Your task to perform on an android device: Open Yahoo.com Image 0: 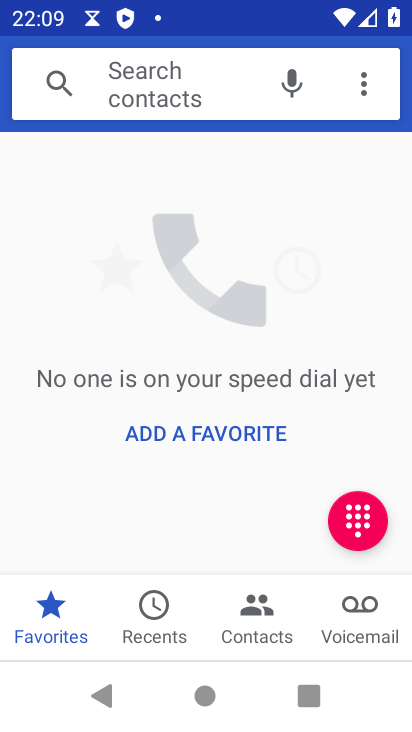
Step 0: press home button
Your task to perform on an android device: Open Yahoo.com Image 1: 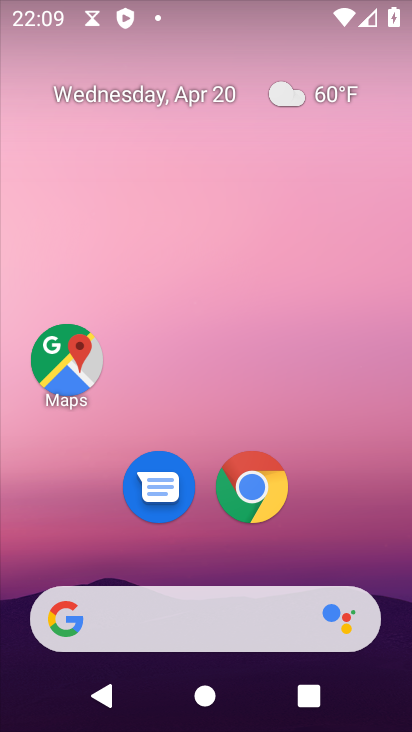
Step 1: click (243, 481)
Your task to perform on an android device: Open Yahoo.com Image 2: 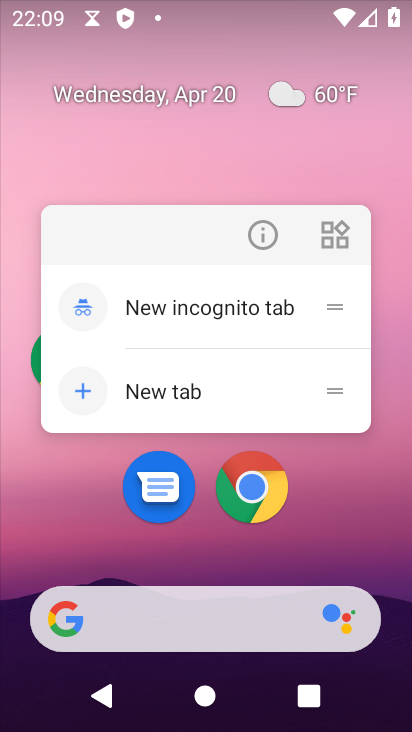
Step 2: click (262, 238)
Your task to perform on an android device: Open Yahoo.com Image 3: 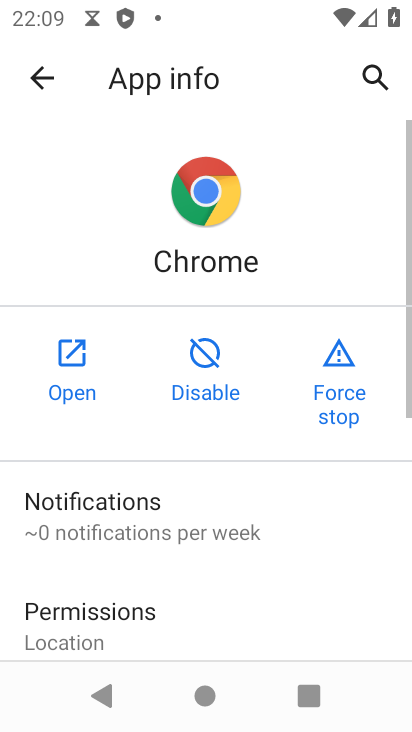
Step 3: click (78, 366)
Your task to perform on an android device: Open Yahoo.com Image 4: 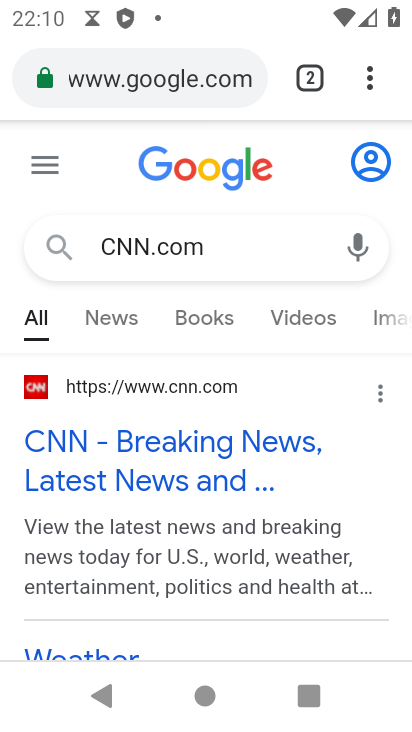
Step 4: click (310, 75)
Your task to perform on an android device: Open Yahoo.com Image 5: 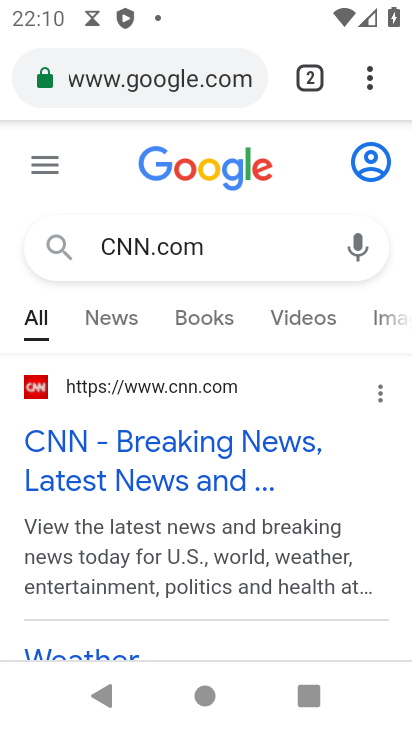
Step 5: click (307, 80)
Your task to perform on an android device: Open Yahoo.com Image 6: 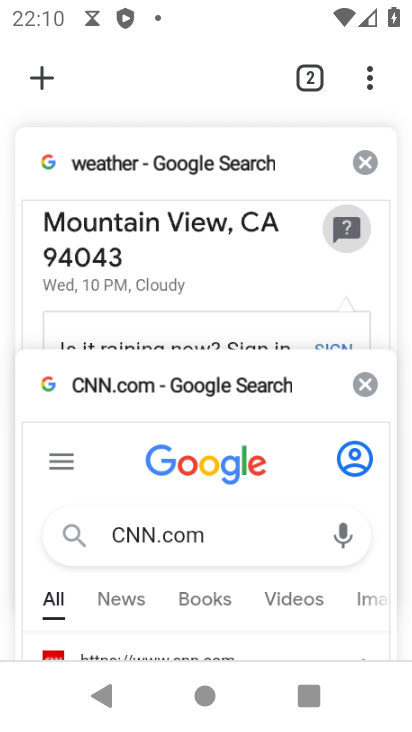
Step 6: click (42, 73)
Your task to perform on an android device: Open Yahoo.com Image 7: 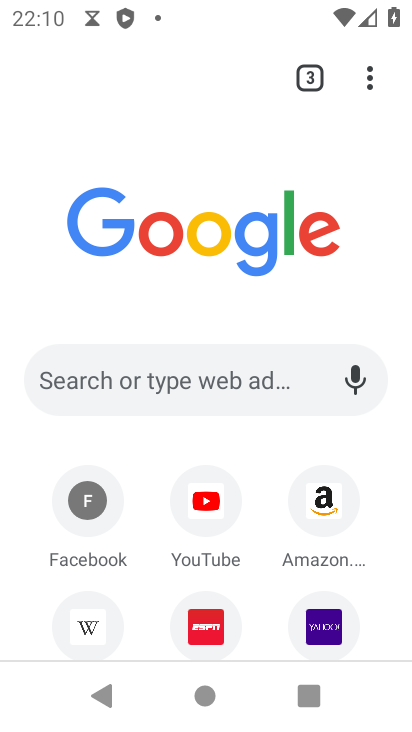
Step 7: drag from (138, 594) to (294, 327)
Your task to perform on an android device: Open Yahoo.com Image 8: 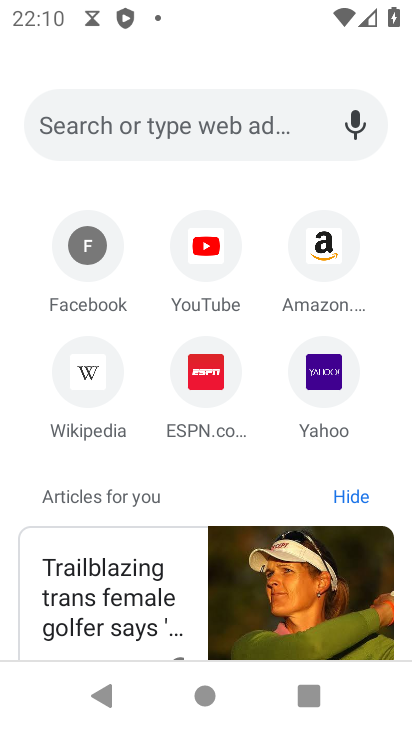
Step 8: click (314, 366)
Your task to perform on an android device: Open Yahoo.com Image 9: 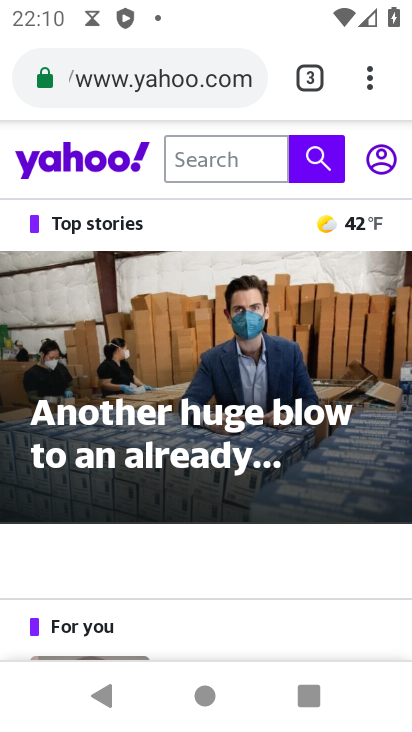
Step 9: task complete